Your task to perform on an android device: Open network settings Image 0: 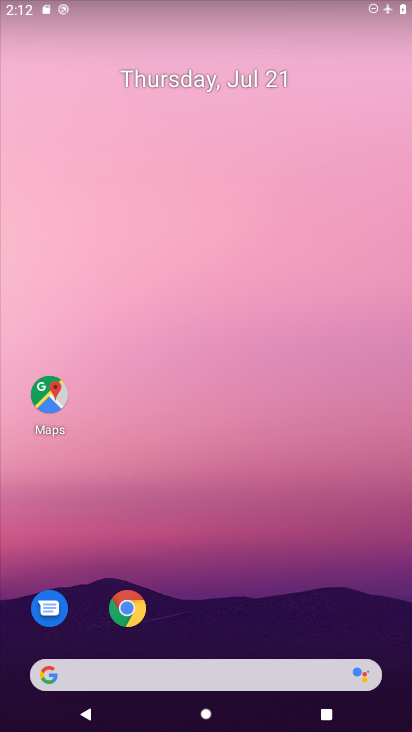
Step 0: drag from (240, 727) to (234, 271)
Your task to perform on an android device: Open network settings Image 1: 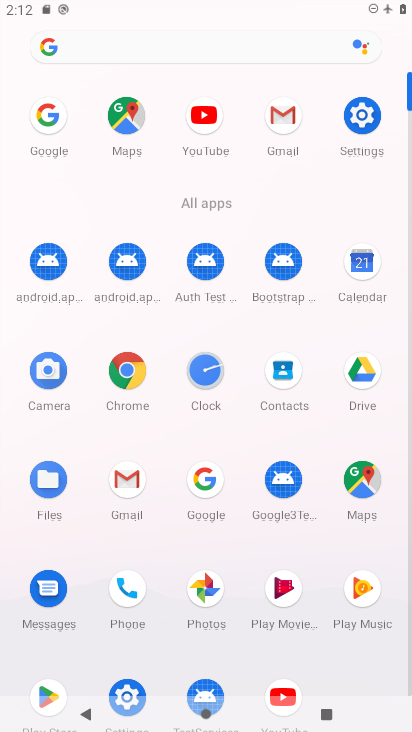
Step 1: click (362, 114)
Your task to perform on an android device: Open network settings Image 2: 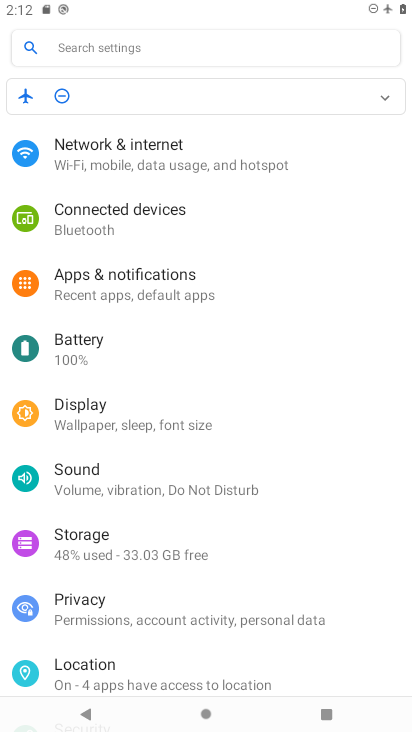
Step 2: click (124, 149)
Your task to perform on an android device: Open network settings Image 3: 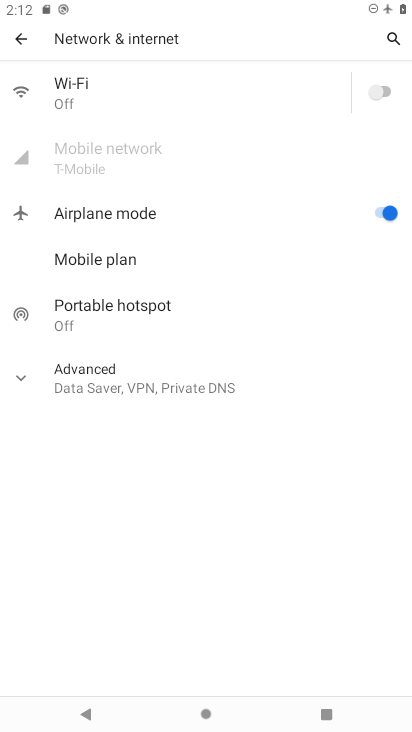
Step 3: task complete